Your task to perform on an android device: toggle airplane mode Image 0: 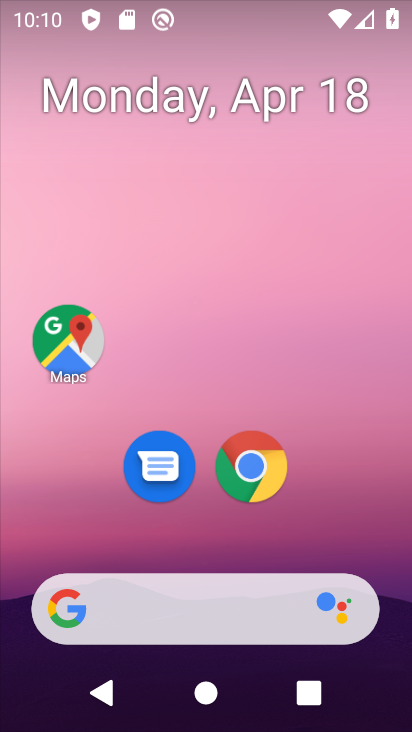
Step 0: drag from (208, 621) to (246, 71)
Your task to perform on an android device: toggle airplane mode Image 1: 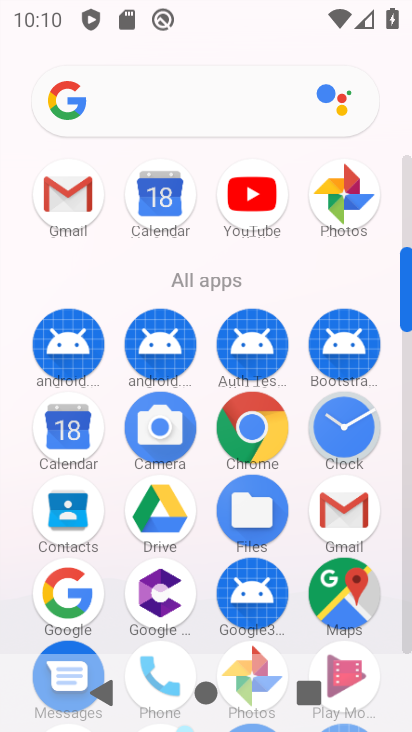
Step 1: click (405, 514)
Your task to perform on an android device: toggle airplane mode Image 2: 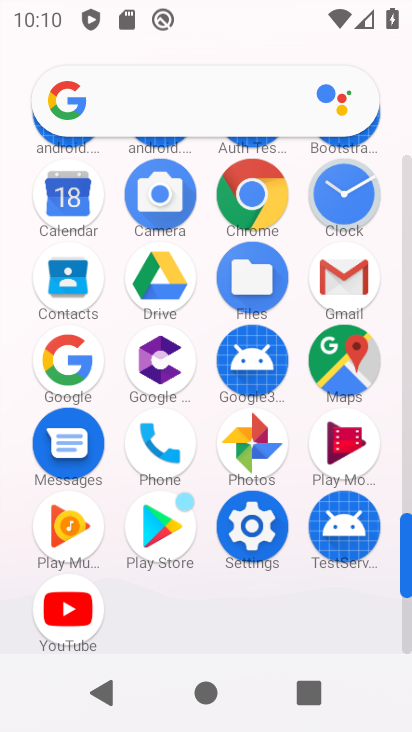
Step 2: click (253, 533)
Your task to perform on an android device: toggle airplane mode Image 3: 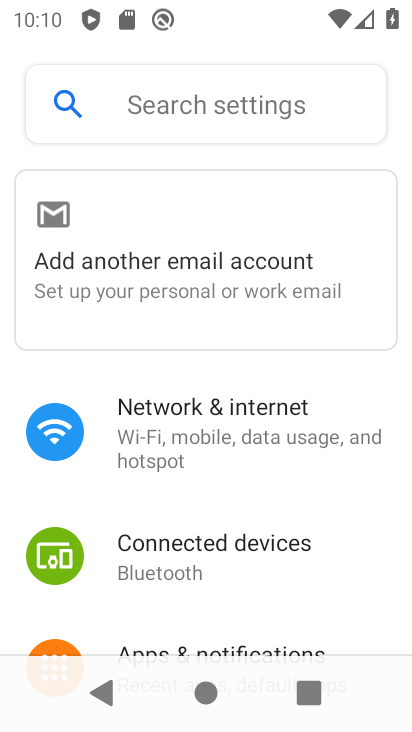
Step 3: click (253, 533)
Your task to perform on an android device: toggle airplane mode Image 4: 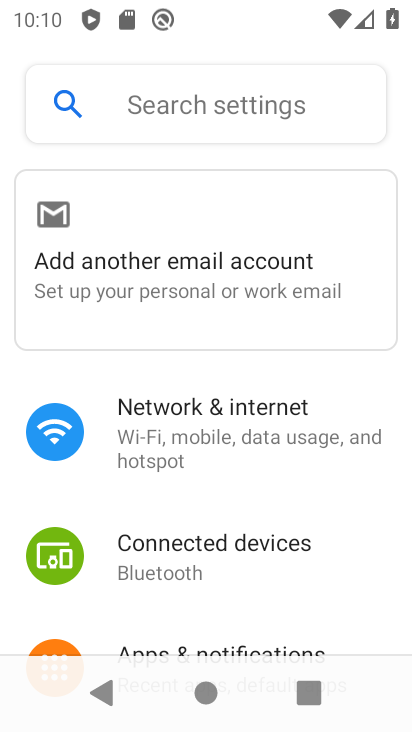
Step 4: click (253, 533)
Your task to perform on an android device: toggle airplane mode Image 5: 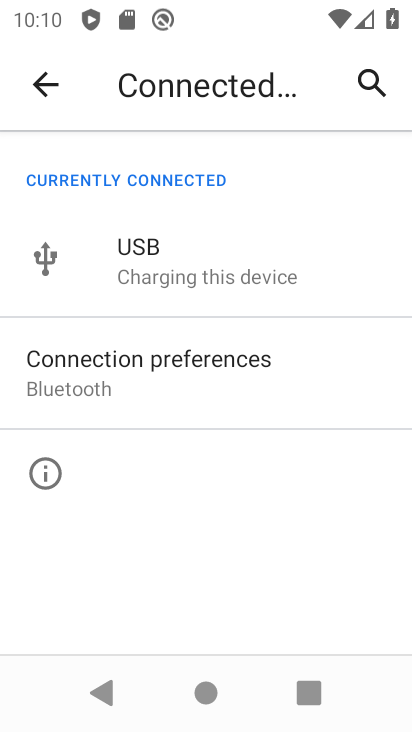
Step 5: click (52, 91)
Your task to perform on an android device: toggle airplane mode Image 6: 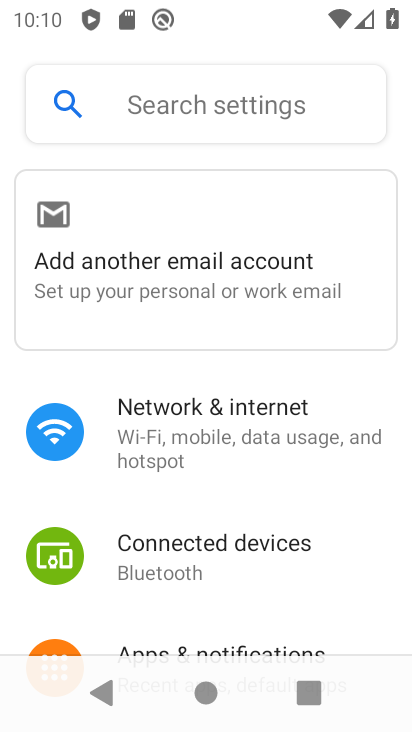
Step 6: click (202, 415)
Your task to perform on an android device: toggle airplane mode Image 7: 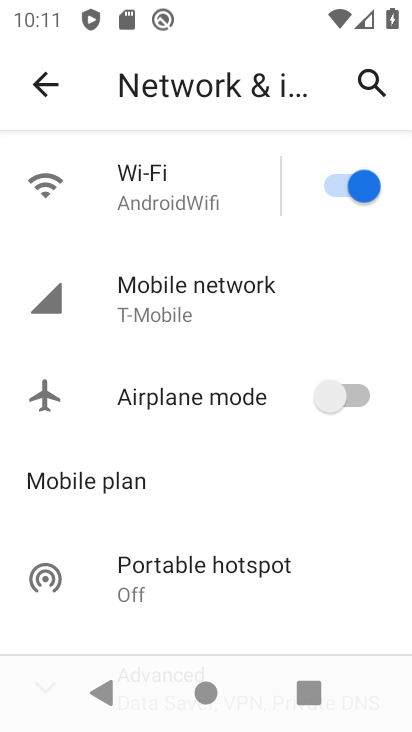
Step 7: click (258, 427)
Your task to perform on an android device: toggle airplane mode Image 8: 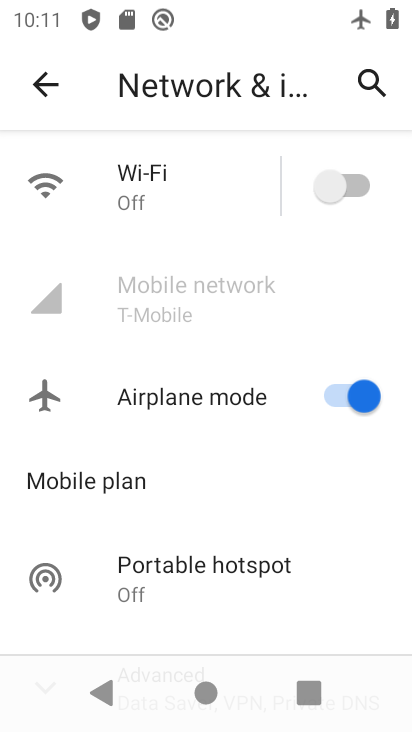
Step 8: task complete